Your task to perform on an android device: change alarm snooze length Image 0: 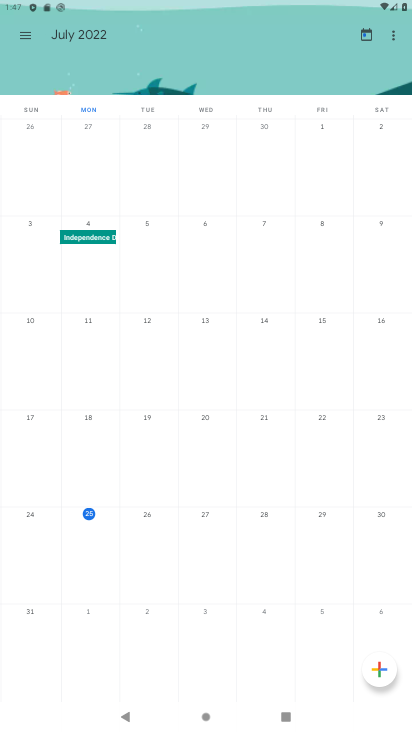
Step 0: press home button
Your task to perform on an android device: change alarm snooze length Image 1: 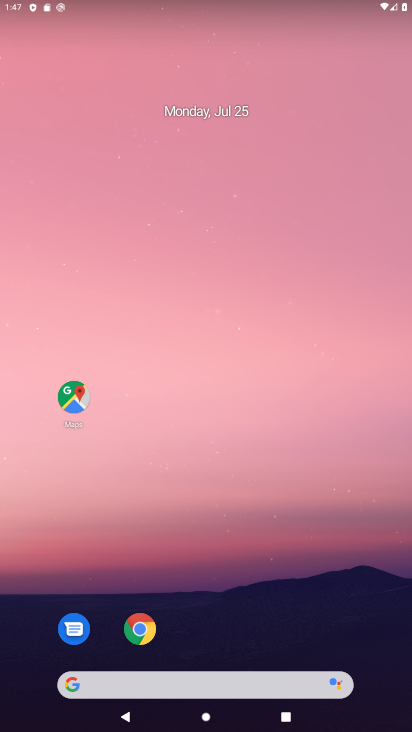
Step 1: drag from (284, 607) to (276, 36)
Your task to perform on an android device: change alarm snooze length Image 2: 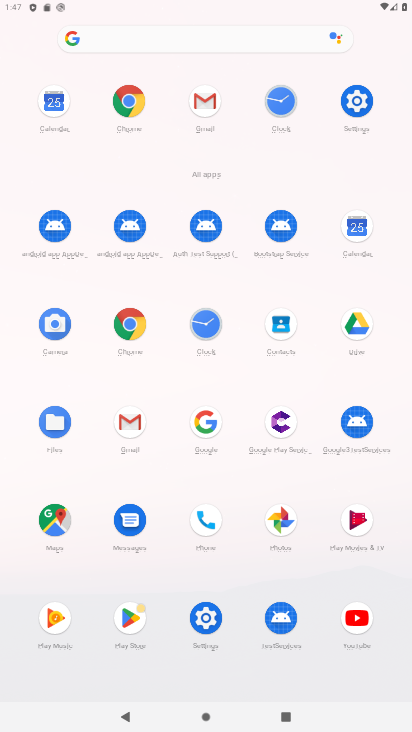
Step 2: click (224, 324)
Your task to perform on an android device: change alarm snooze length Image 3: 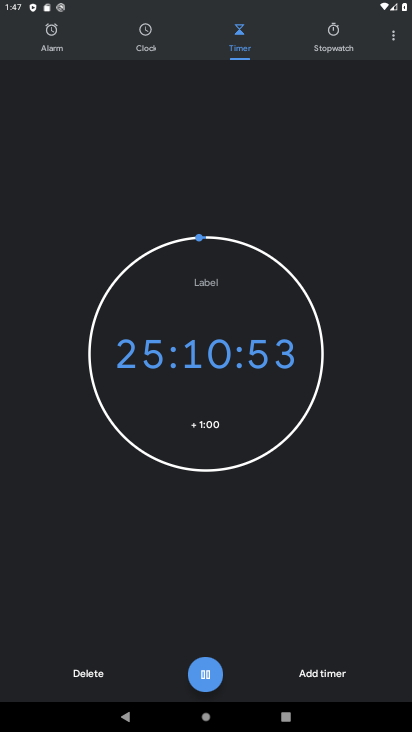
Step 3: click (391, 42)
Your task to perform on an android device: change alarm snooze length Image 4: 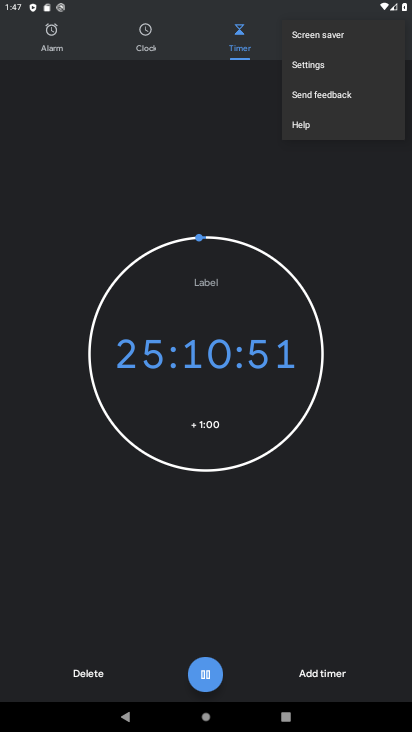
Step 4: click (312, 63)
Your task to perform on an android device: change alarm snooze length Image 5: 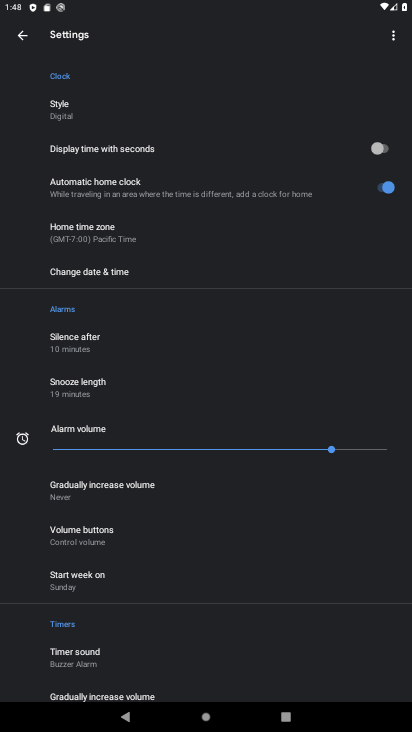
Step 5: click (68, 382)
Your task to perform on an android device: change alarm snooze length Image 6: 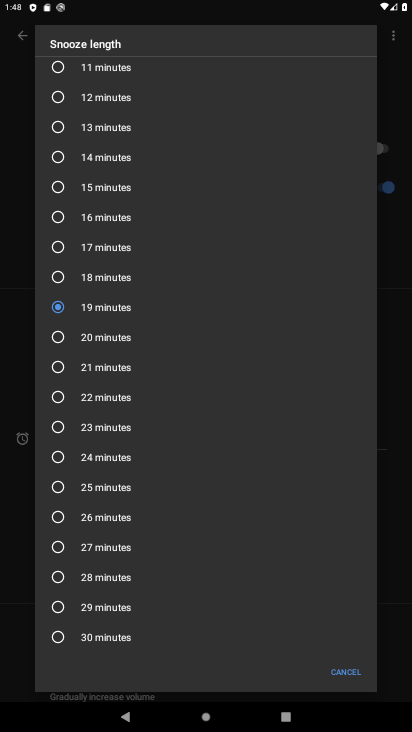
Step 6: click (82, 392)
Your task to perform on an android device: change alarm snooze length Image 7: 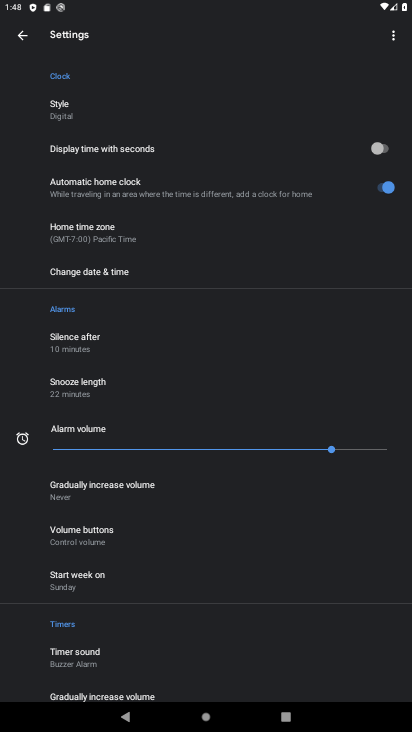
Step 7: task complete